Your task to perform on an android device: open app "Booking.com: Hotels and more" (install if not already installed) and enter user name: "misting@outlook.com" and password: "blandly" Image 0: 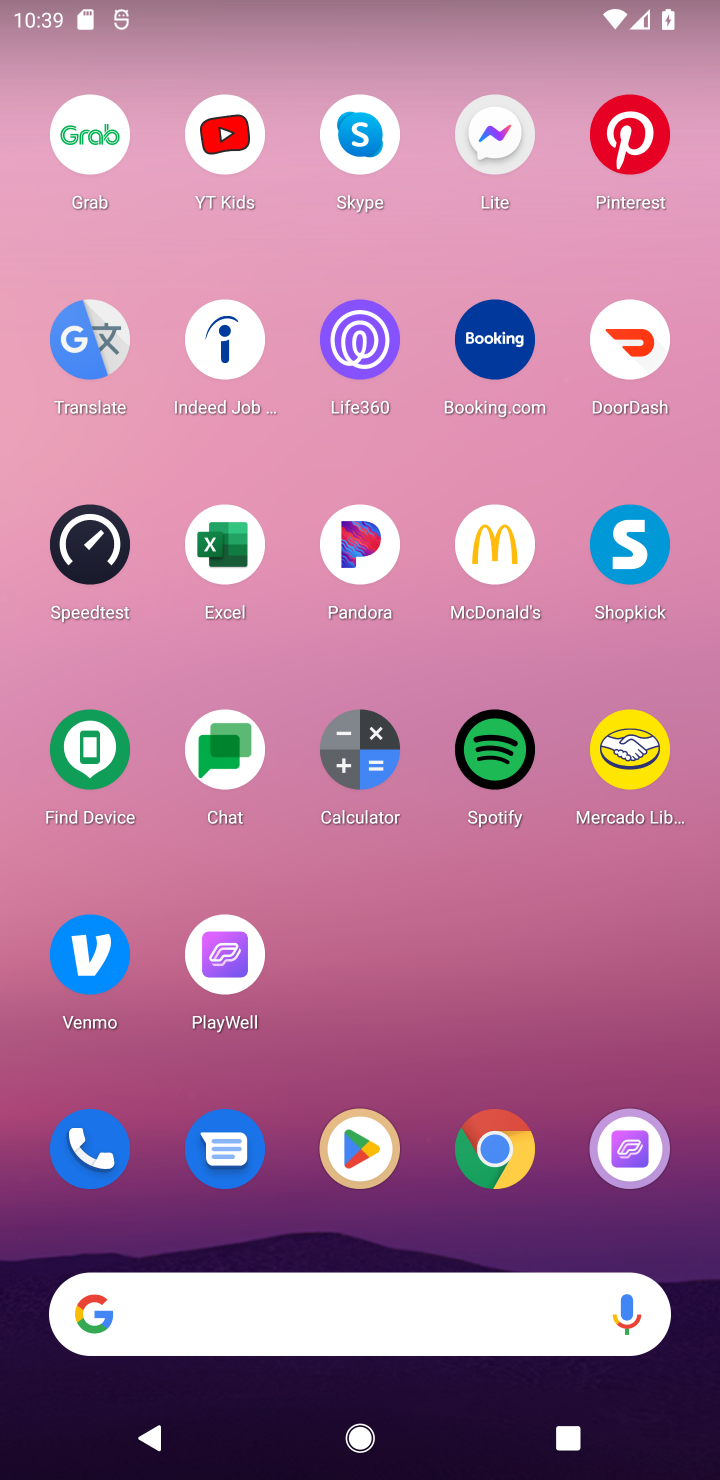
Step 0: click (377, 1124)
Your task to perform on an android device: open app "Booking.com: Hotels and more" (install if not already installed) and enter user name: "misting@outlook.com" and password: "blandly" Image 1: 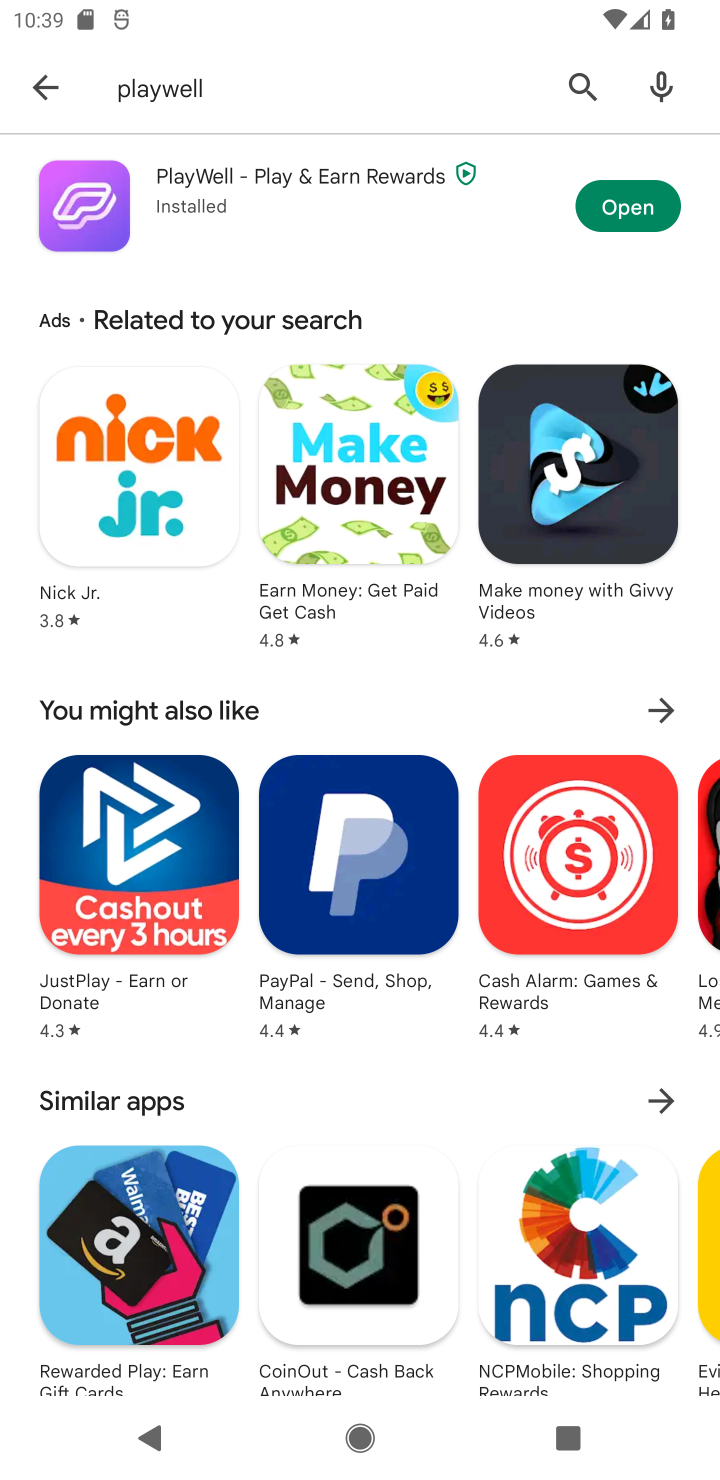
Step 1: click (566, 81)
Your task to perform on an android device: open app "Booking.com: Hotels and more" (install if not already installed) and enter user name: "misting@outlook.com" and password: "blandly" Image 2: 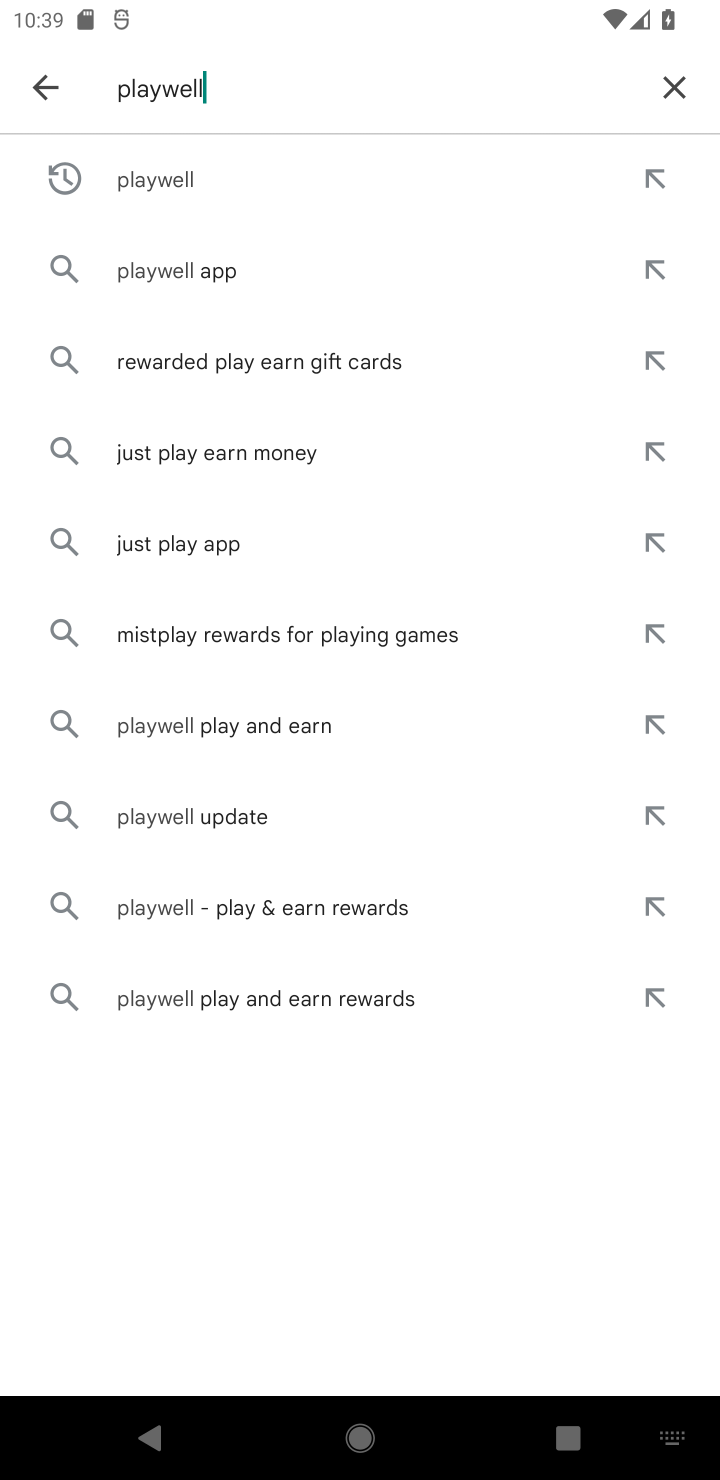
Step 2: click (685, 94)
Your task to perform on an android device: open app "Booking.com: Hotels and more" (install if not already installed) and enter user name: "misting@outlook.com" and password: "blandly" Image 3: 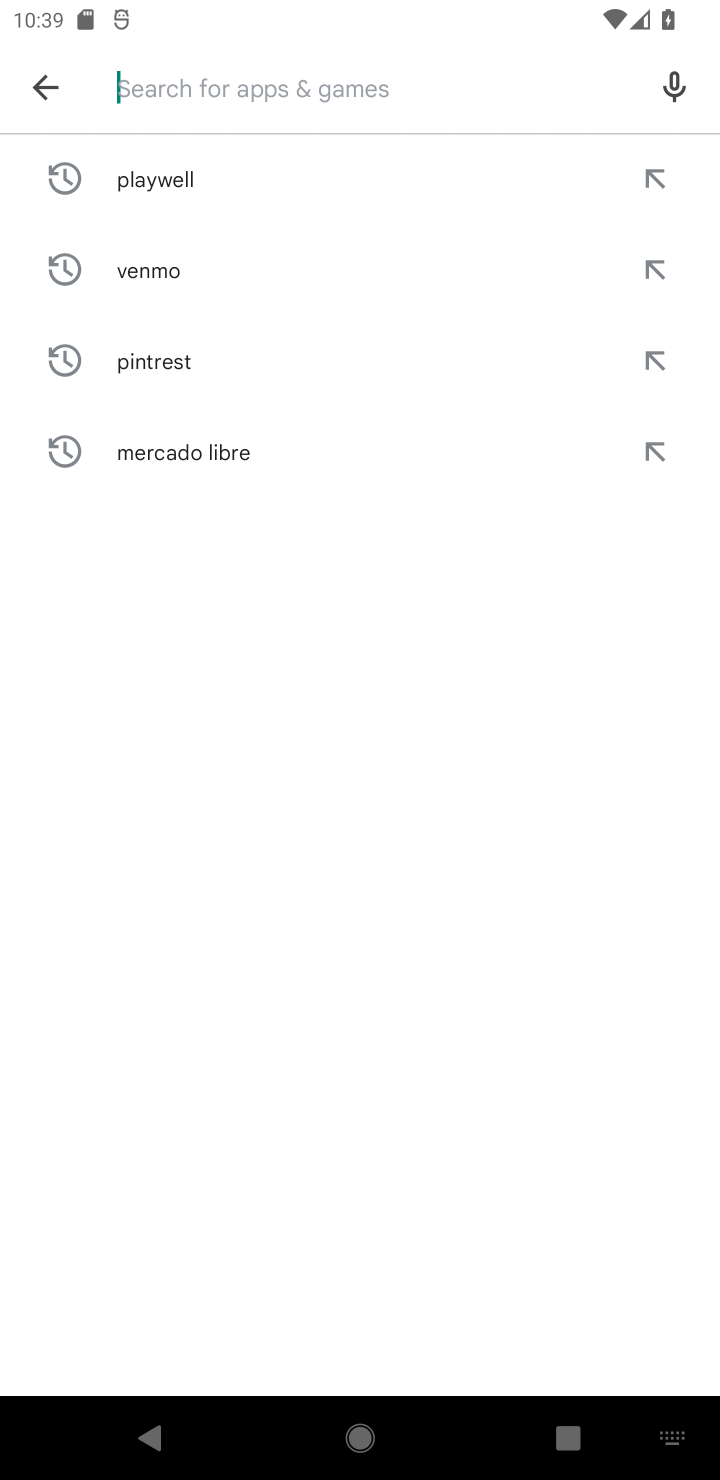
Step 3: type "booking .com"
Your task to perform on an android device: open app "Booking.com: Hotels and more" (install if not already installed) and enter user name: "misting@outlook.com" and password: "blandly" Image 4: 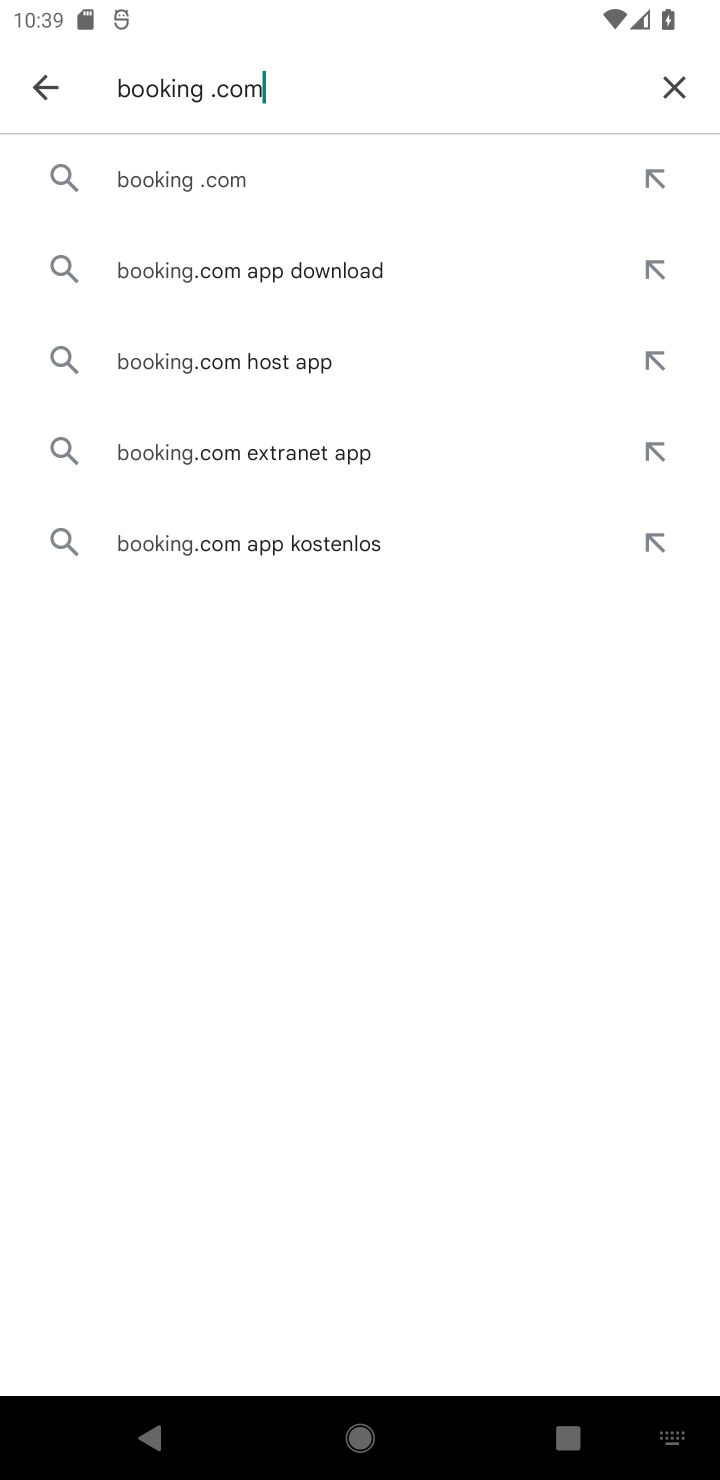
Step 4: click (306, 185)
Your task to perform on an android device: open app "Booking.com: Hotels and more" (install if not already installed) and enter user name: "misting@outlook.com" and password: "blandly" Image 5: 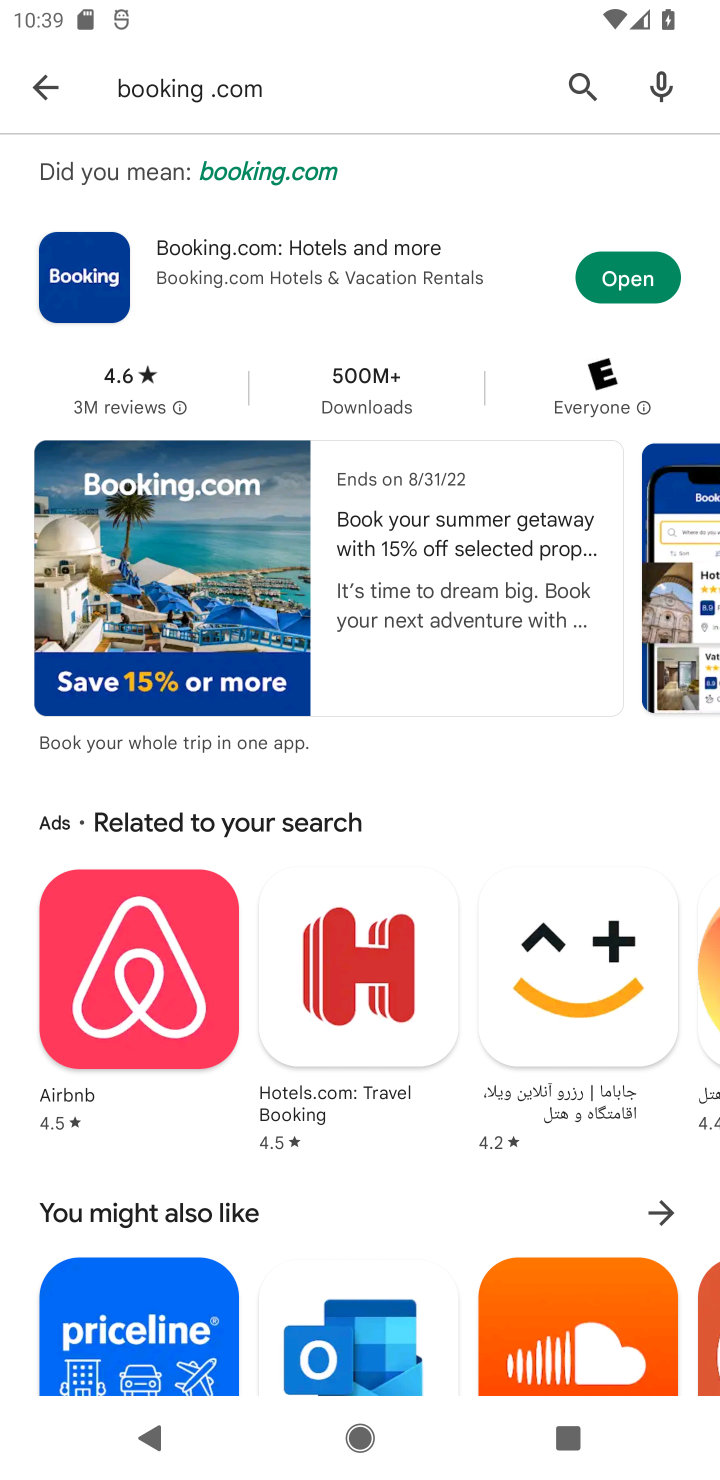
Step 5: click (633, 290)
Your task to perform on an android device: open app "Booking.com: Hotels and more" (install if not already installed) and enter user name: "misting@outlook.com" and password: "blandly" Image 6: 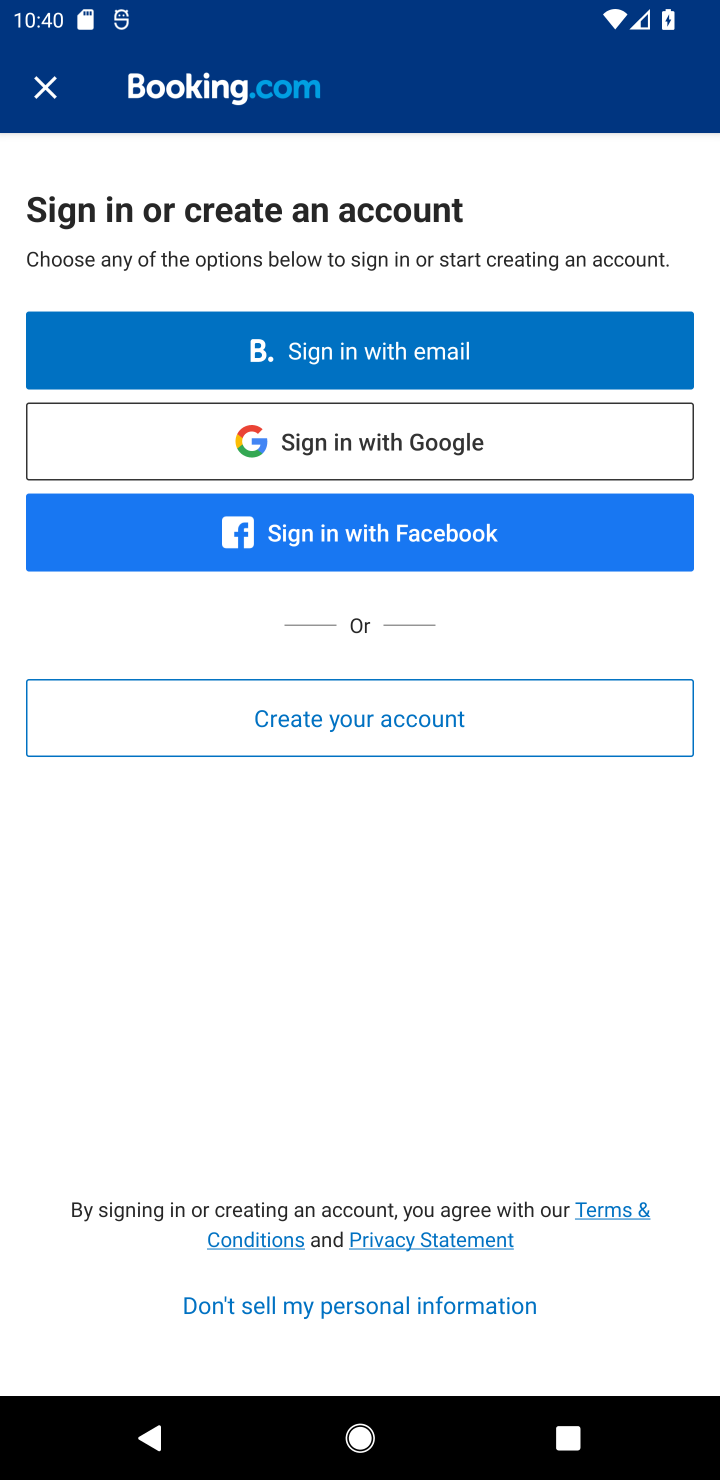
Step 6: click (399, 337)
Your task to perform on an android device: open app "Booking.com: Hotels and more" (install if not already installed) and enter user name: "misting@outlook.com" and password: "blandly" Image 7: 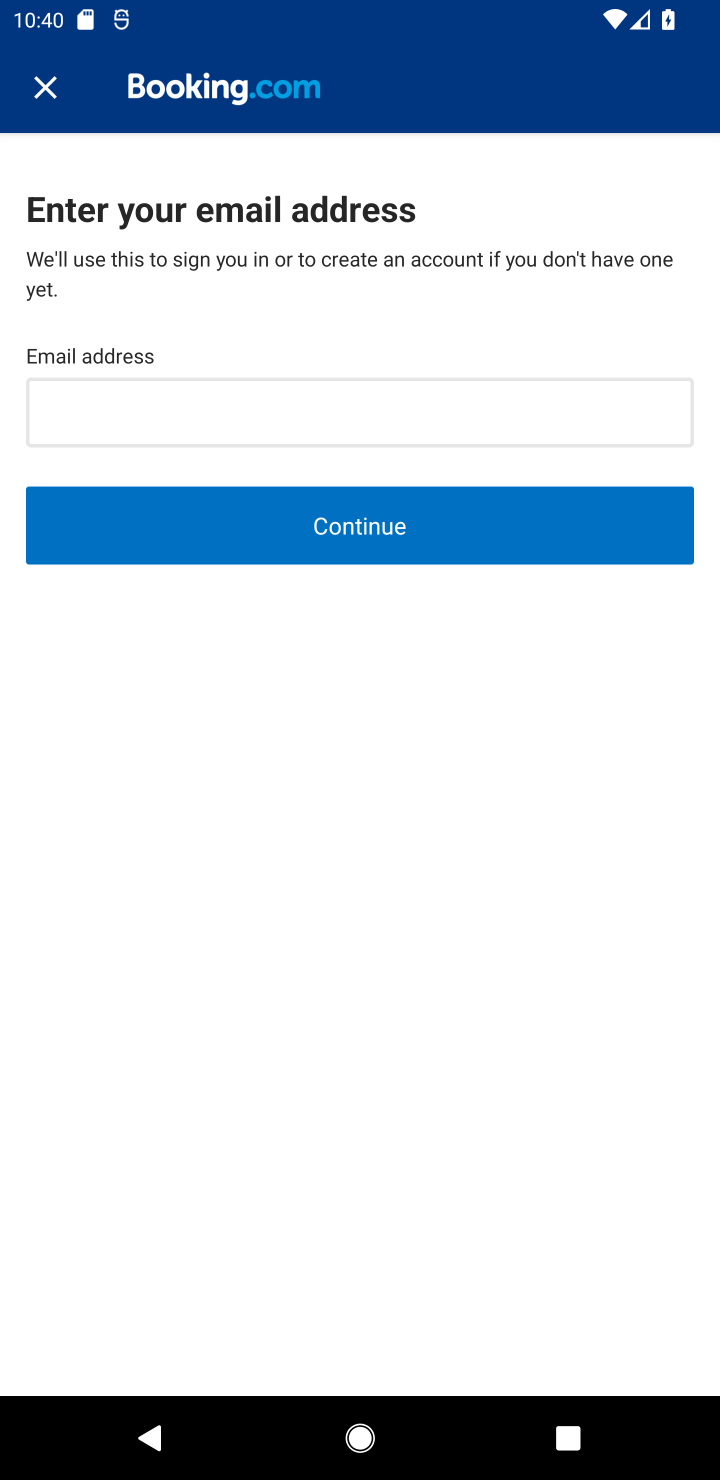
Step 7: click (480, 411)
Your task to perform on an android device: open app "Booking.com: Hotels and more" (install if not already installed) and enter user name: "misting@outlook.com" and password: "blandly" Image 8: 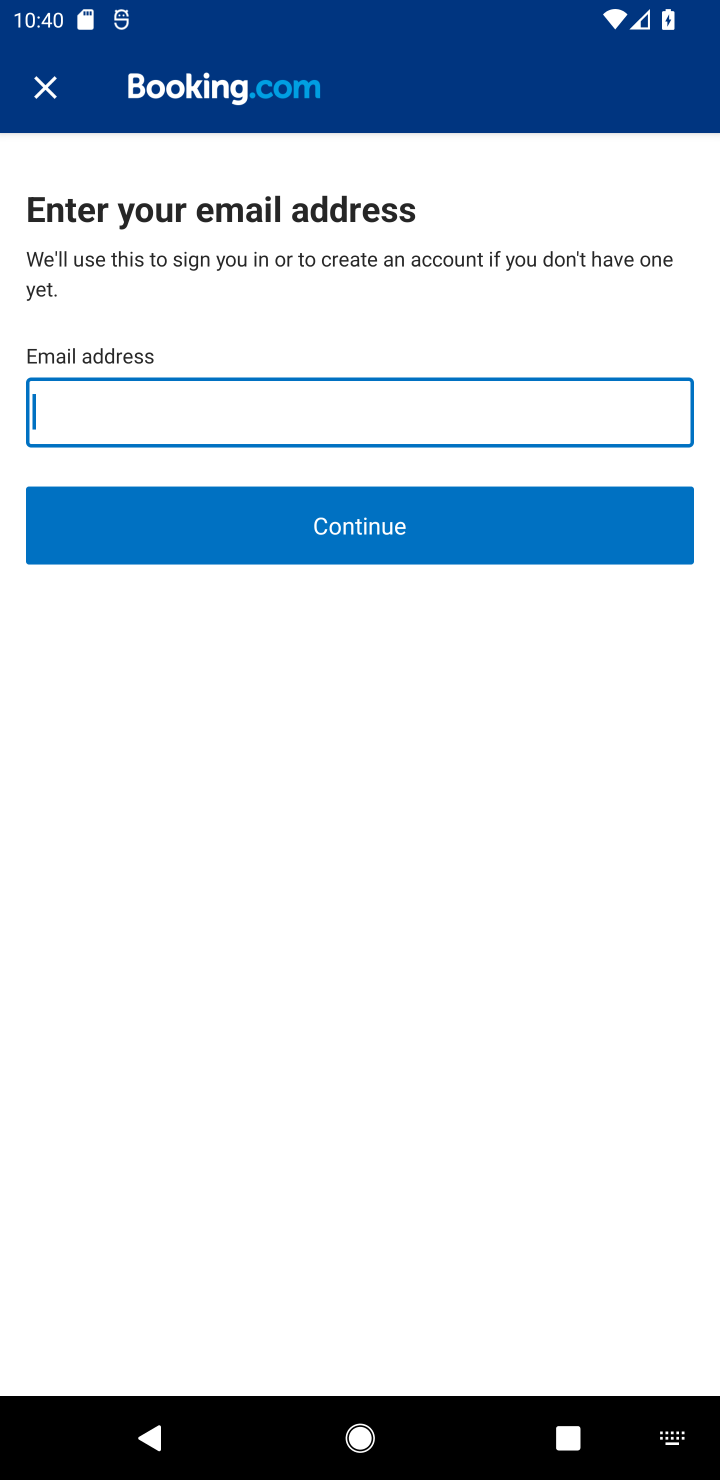
Step 8: type "misting@outlook.com"
Your task to perform on an android device: open app "Booking.com: Hotels and more" (install if not already installed) and enter user name: "misting@outlook.com" and password: "blandly" Image 9: 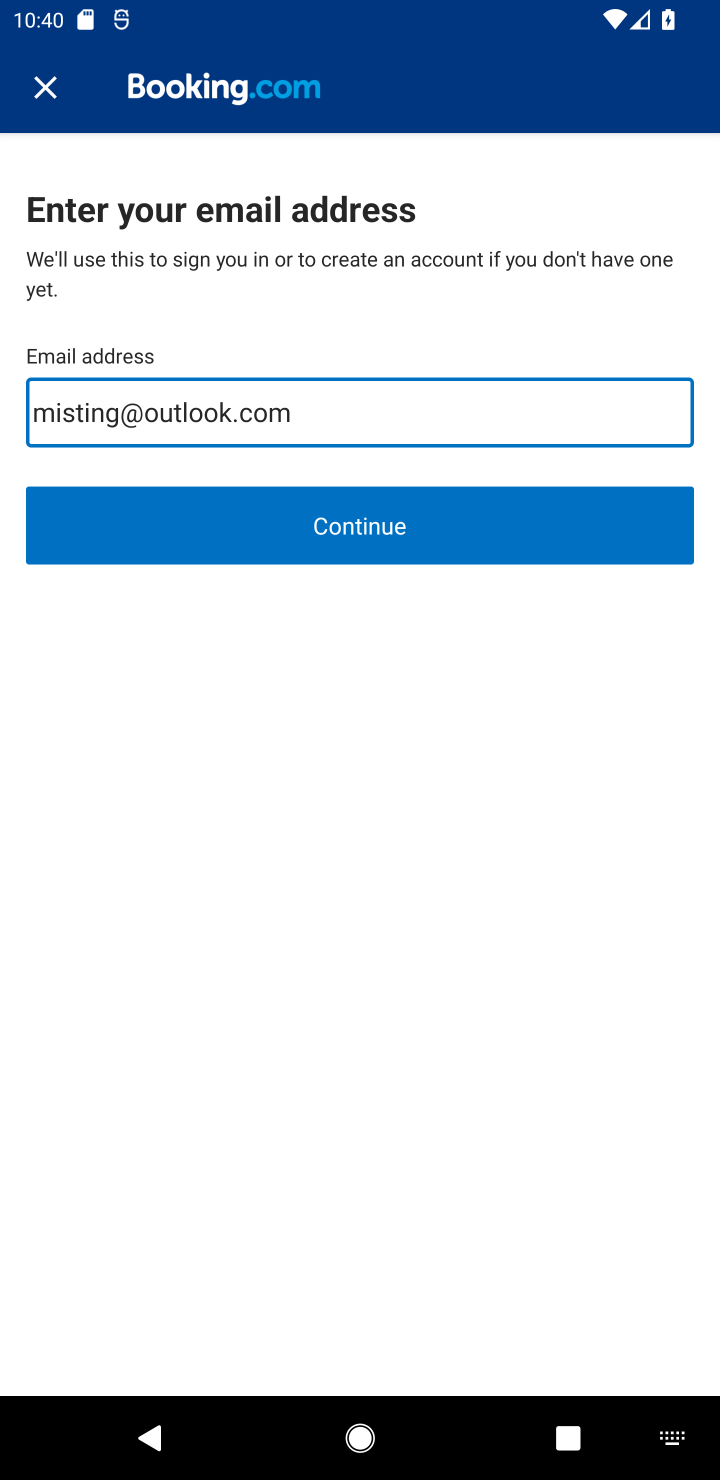
Step 9: click (203, 521)
Your task to perform on an android device: open app "Booking.com: Hotels and more" (install if not already installed) and enter user name: "misting@outlook.com" and password: "blandly" Image 10: 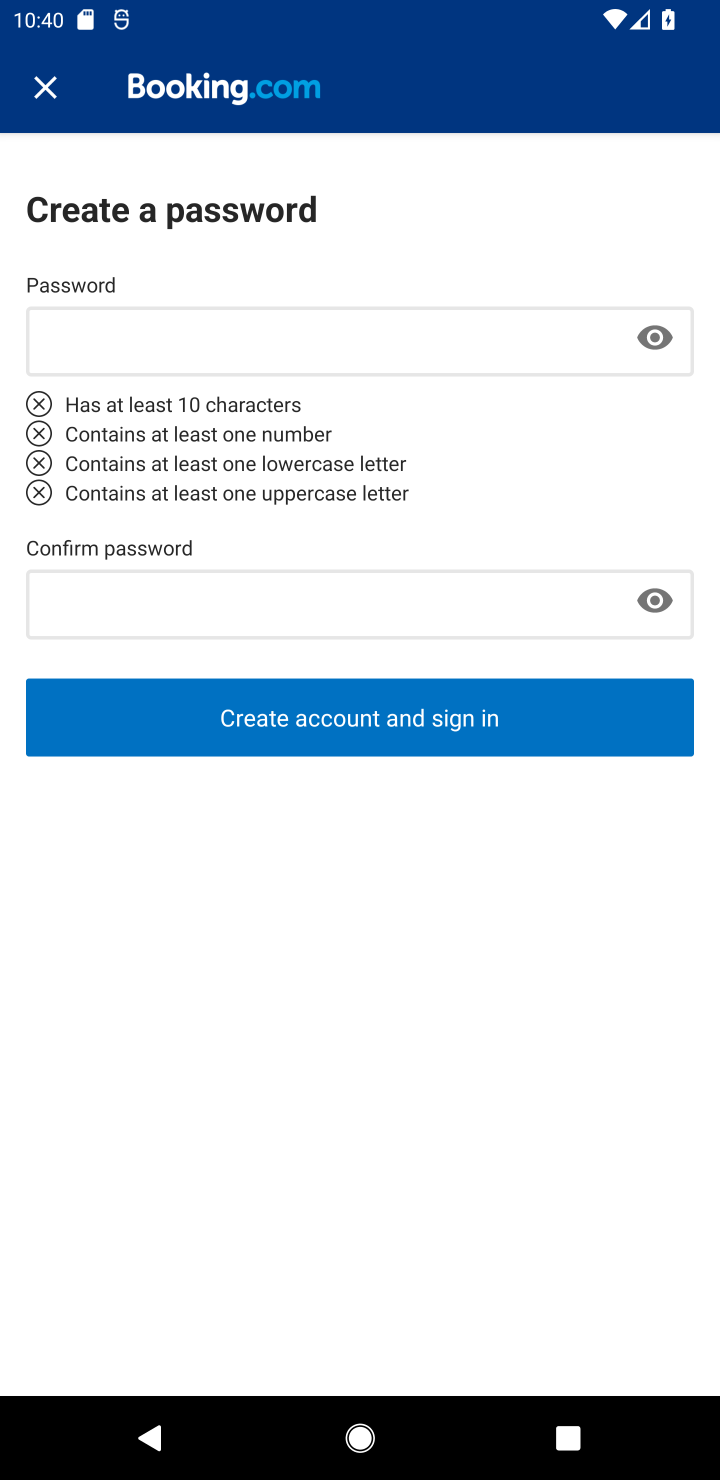
Step 10: click (340, 344)
Your task to perform on an android device: open app "Booking.com: Hotels and more" (install if not already installed) and enter user name: "misting@outlook.com" and password: "blandly" Image 11: 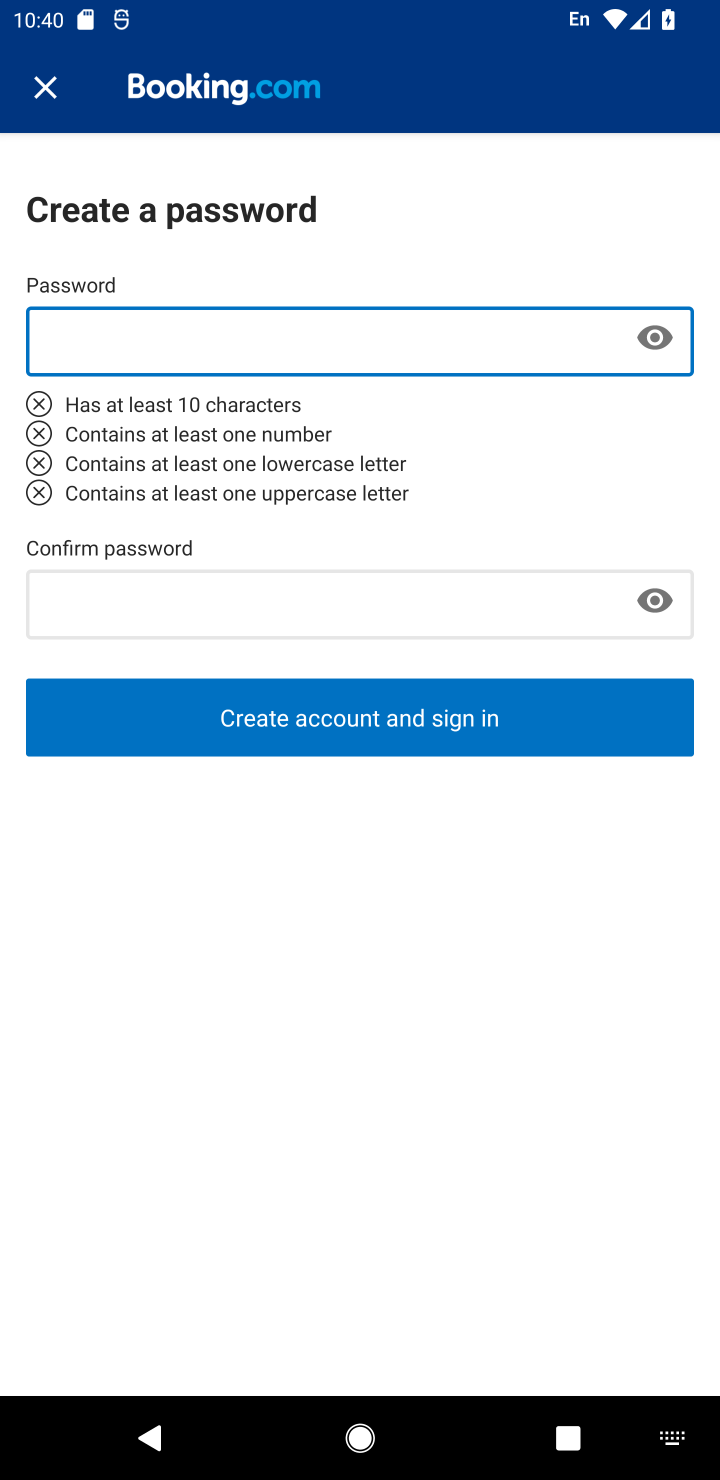
Step 11: type "blandly"
Your task to perform on an android device: open app "Booking.com: Hotels and more" (install if not already installed) and enter user name: "misting@outlook.com" and password: "blandly" Image 12: 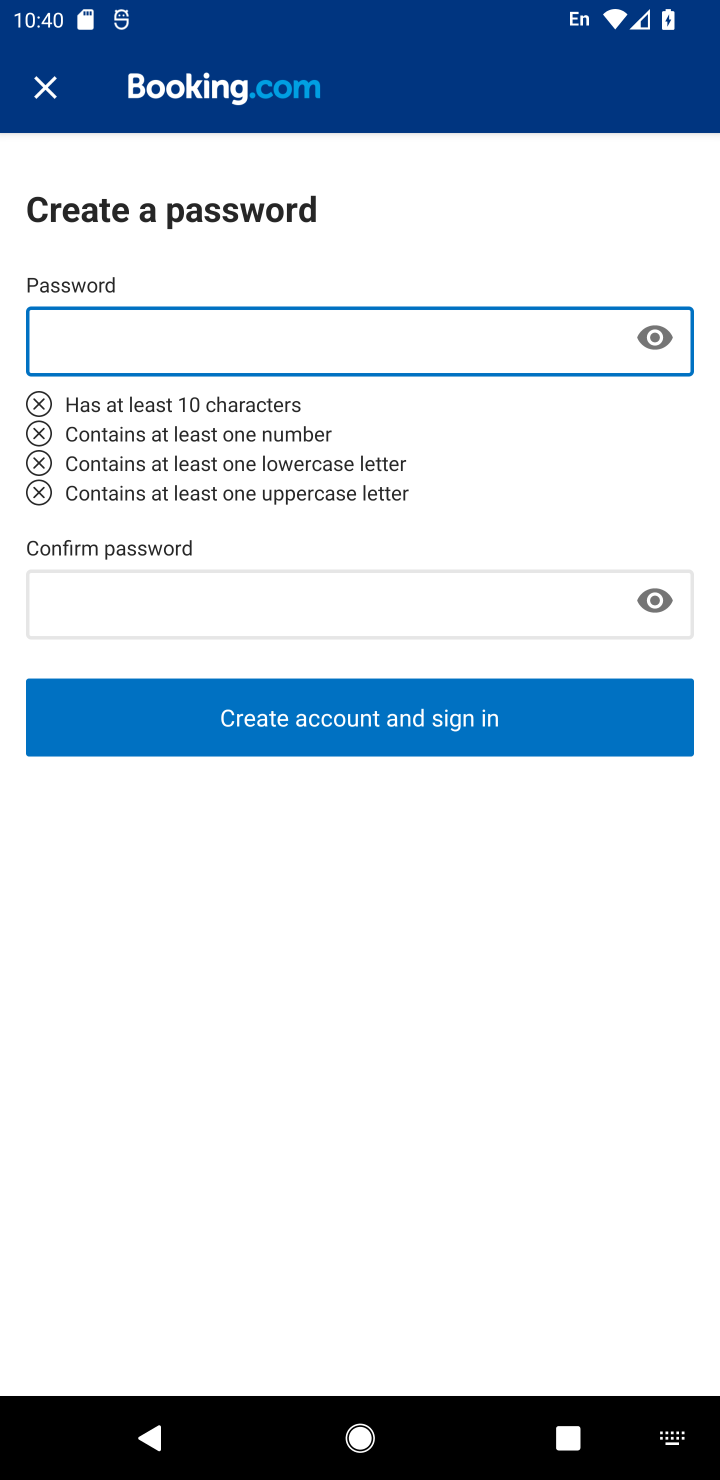
Step 12: click (321, 601)
Your task to perform on an android device: open app "Booking.com: Hotels and more" (install if not already installed) and enter user name: "misting@outlook.com" and password: "blandly" Image 13: 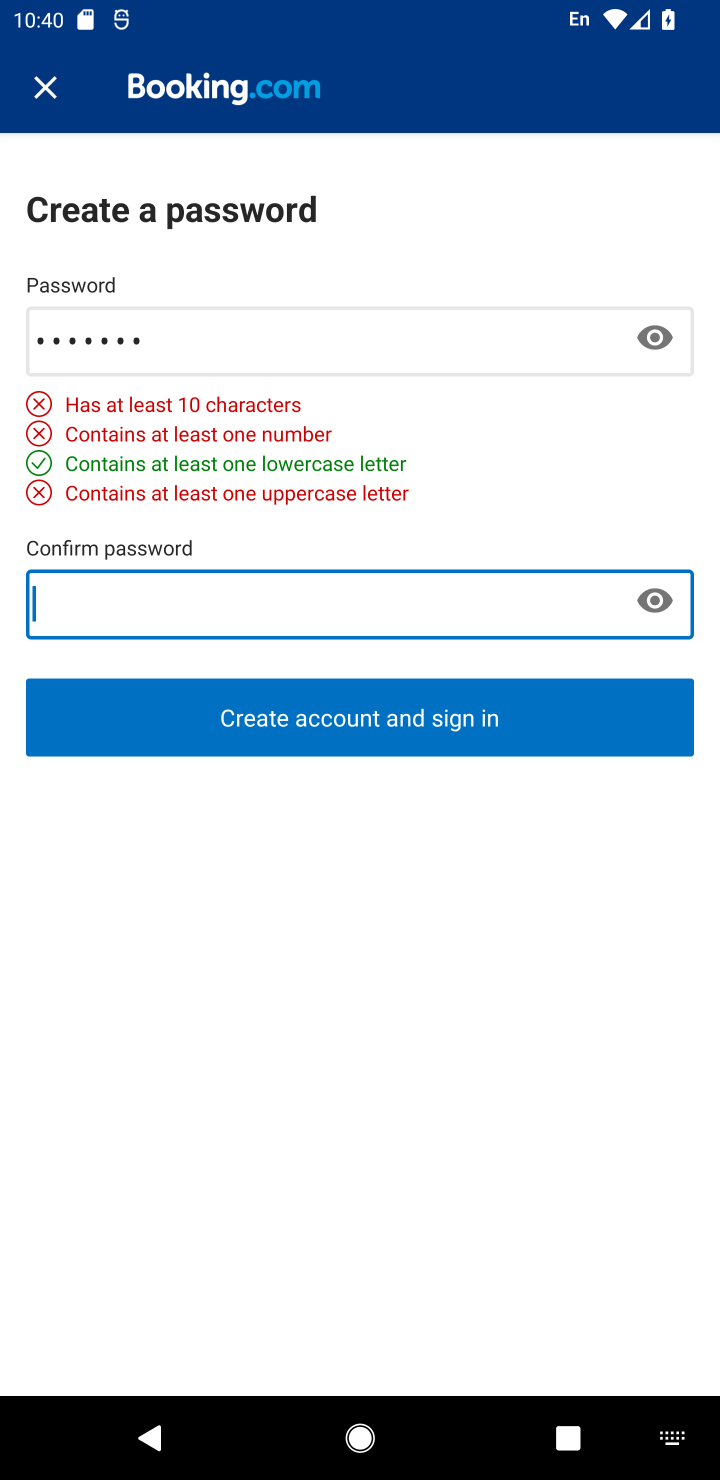
Step 13: type "blandly"
Your task to perform on an android device: open app "Booking.com: Hotels and more" (install if not already installed) and enter user name: "misting@outlook.com" and password: "blandly" Image 14: 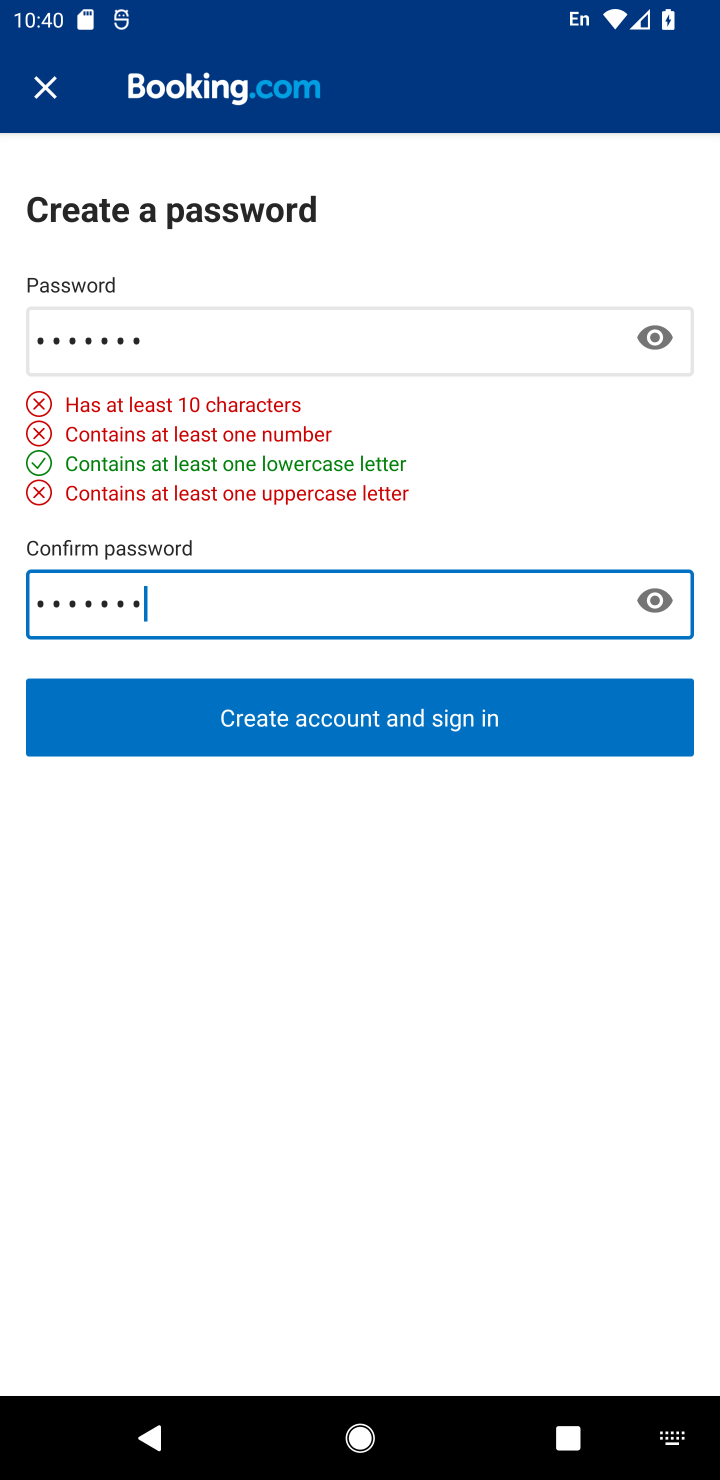
Step 14: click (328, 692)
Your task to perform on an android device: open app "Booking.com: Hotels and more" (install if not already installed) and enter user name: "misting@outlook.com" and password: "blandly" Image 15: 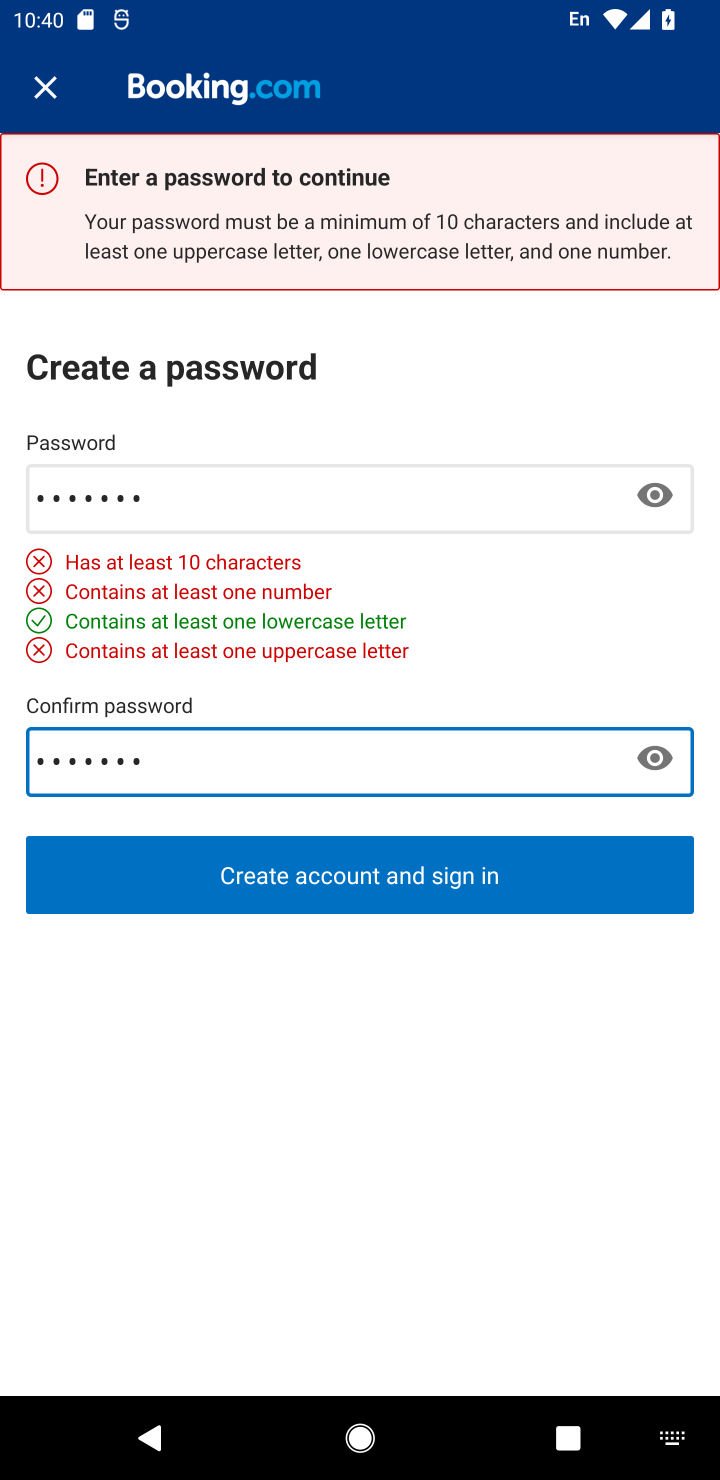
Step 15: task complete